Your task to perform on an android device: turn off improve location accuracy Image 0: 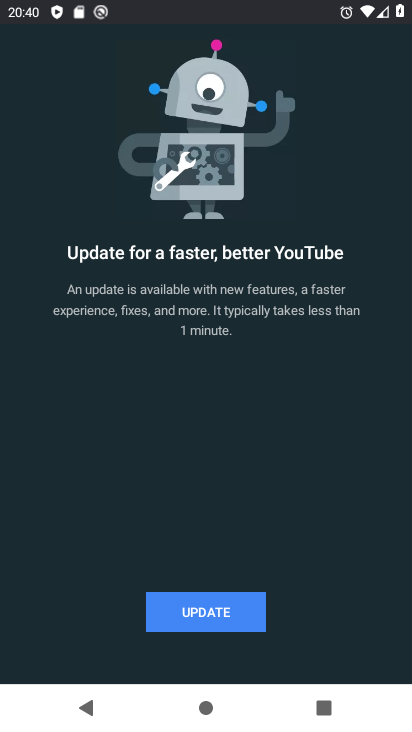
Step 0: press home button
Your task to perform on an android device: turn off improve location accuracy Image 1: 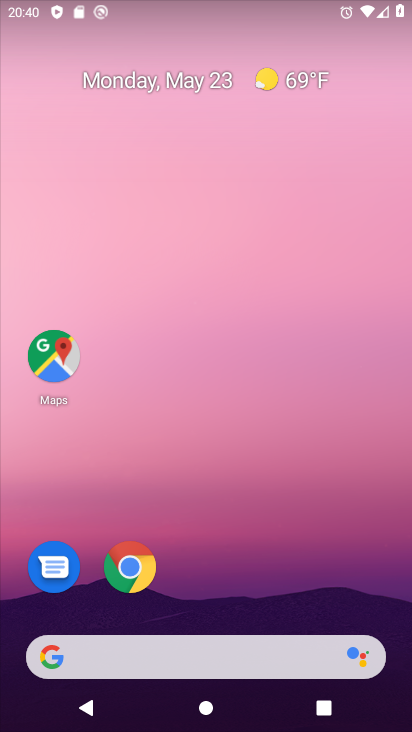
Step 1: drag from (271, 512) to (303, 5)
Your task to perform on an android device: turn off improve location accuracy Image 2: 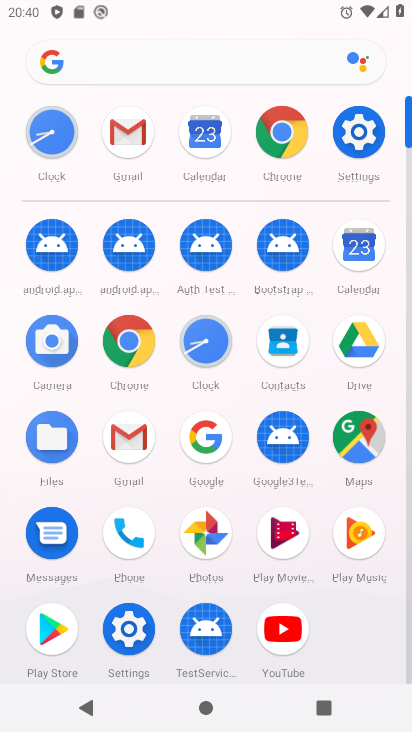
Step 2: click (353, 162)
Your task to perform on an android device: turn off improve location accuracy Image 3: 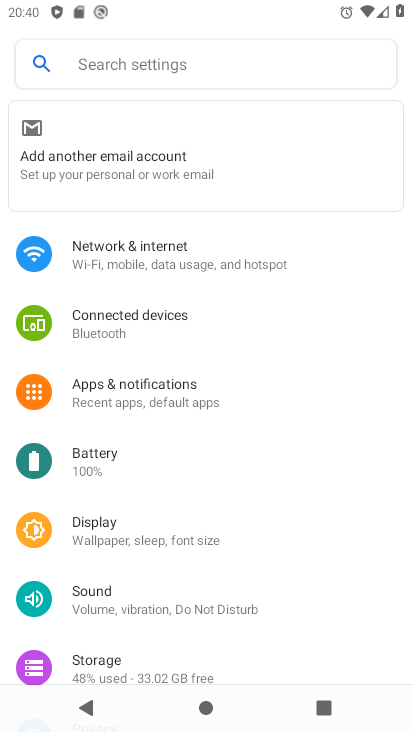
Step 3: drag from (156, 551) to (196, 261)
Your task to perform on an android device: turn off improve location accuracy Image 4: 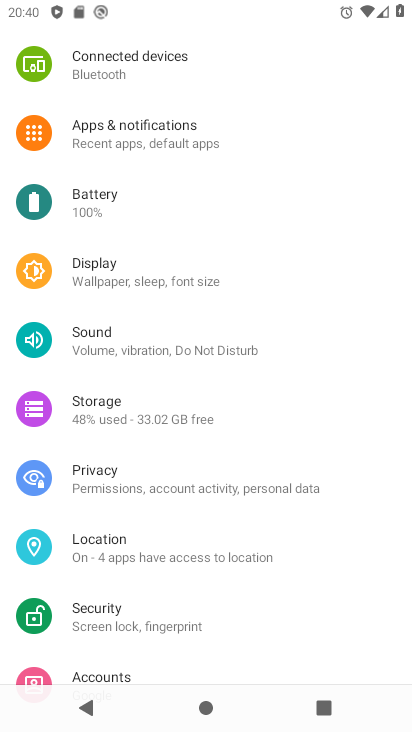
Step 4: click (143, 565)
Your task to perform on an android device: turn off improve location accuracy Image 5: 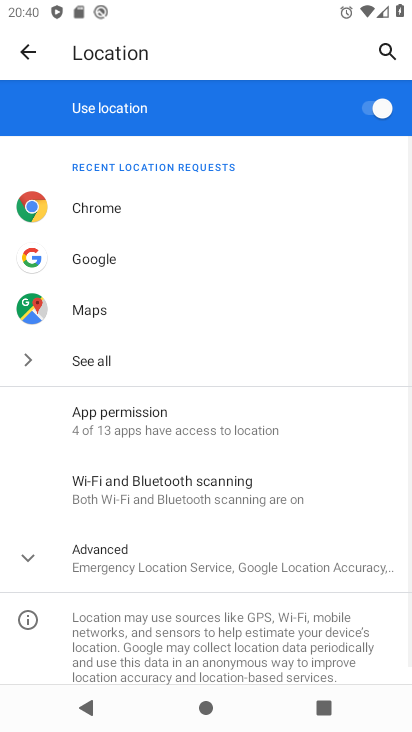
Step 5: click (190, 561)
Your task to perform on an android device: turn off improve location accuracy Image 6: 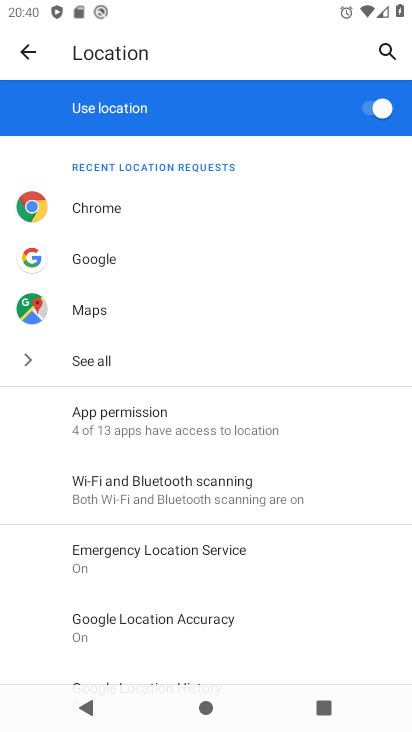
Step 6: click (209, 625)
Your task to perform on an android device: turn off improve location accuracy Image 7: 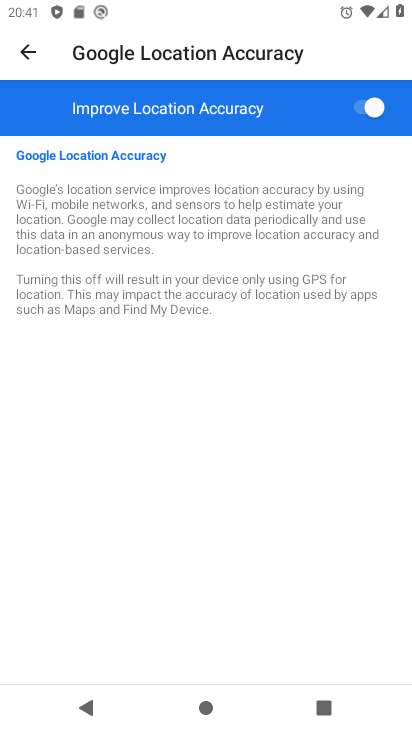
Step 7: click (357, 105)
Your task to perform on an android device: turn off improve location accuracy Image 8: 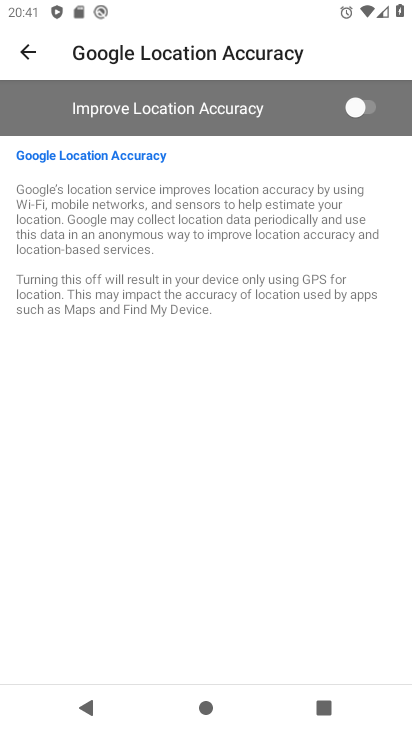
Step 8: task complete